Your task to perform on an android device: delete browsing data in the chrome app Image 0: 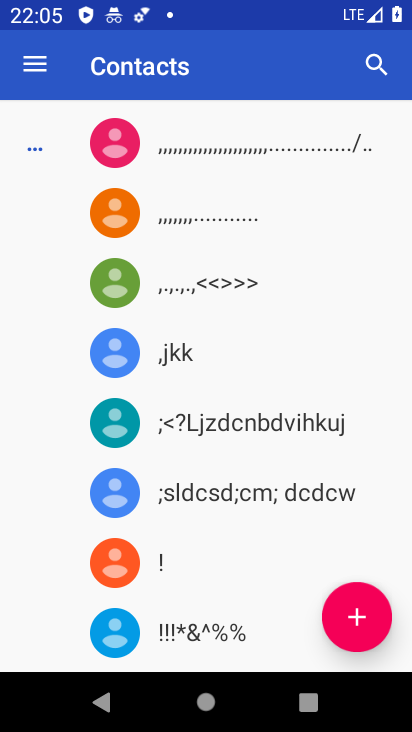
Step 0: press home button
Your task to perform on an android device: delete browsing data in the chrome app Image 1: 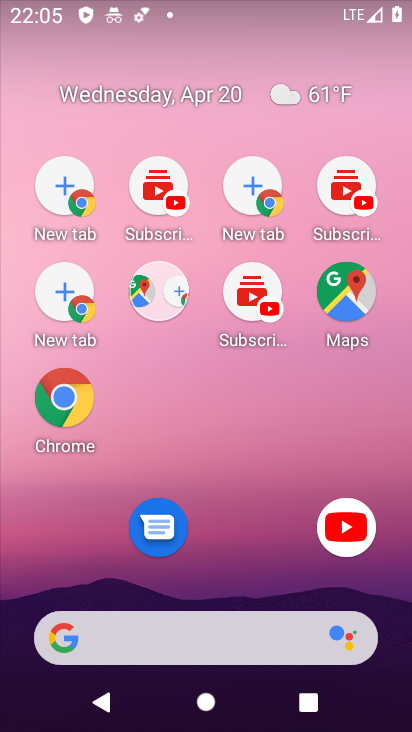
Step 1: drag from (252, 566) to (122, 73)
Your task to perform on an android device: delete browsing data in the chrome app Image 2: 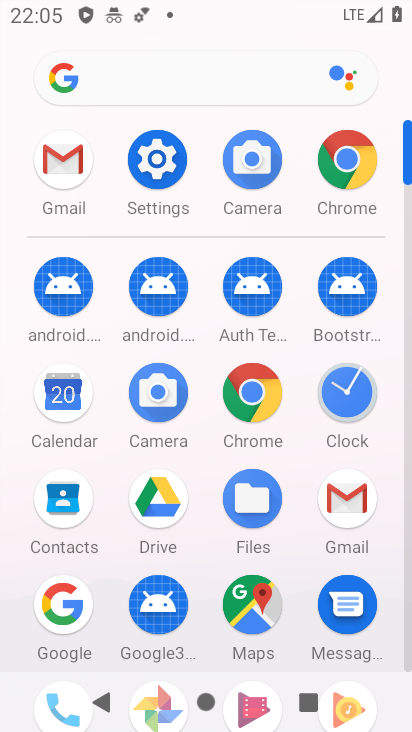
Step 2: click (353, 161)
Your task to perform on an android device: delete browsing data in the chrome app Image 3: 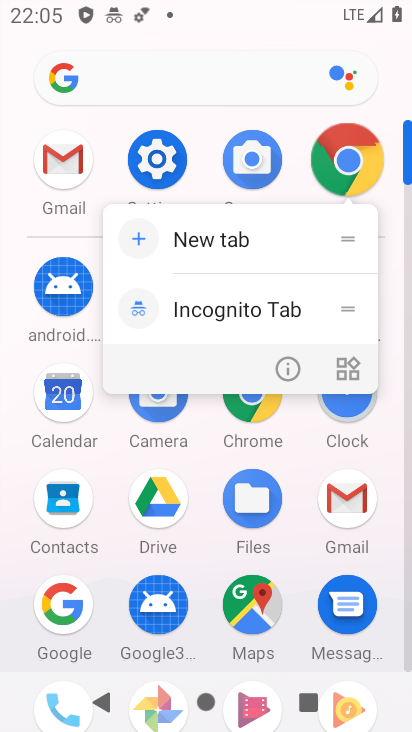
Step 3: click (353, 161)
Your task to perform on an android device: delete browsing data in the chrome app Image 4: 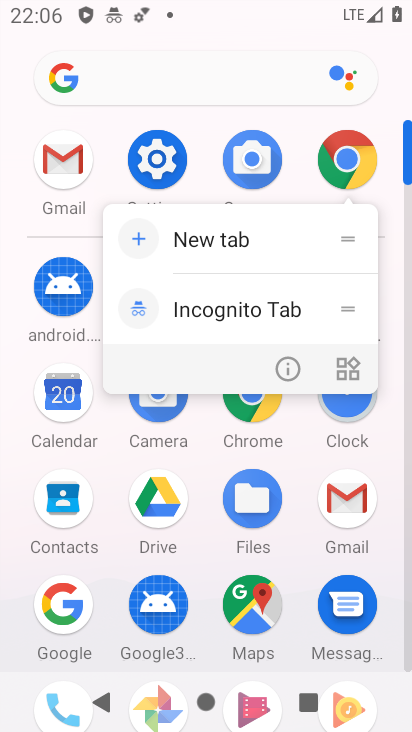
Step 4: click (355, 159)
Your task to perform on an android device: delete browsing data in the chrome app Image 5: 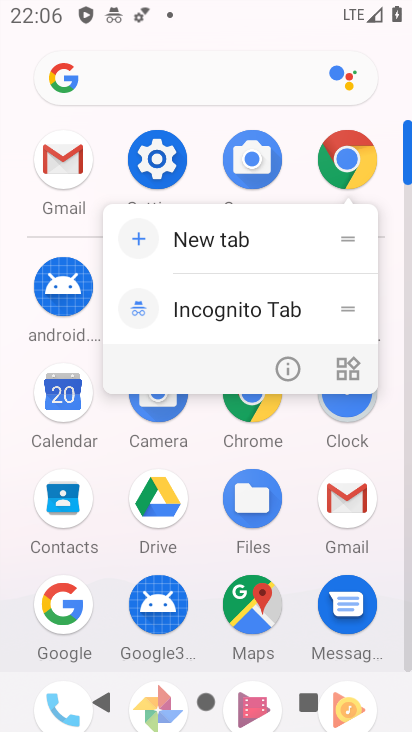
Step 5: click (355, 156)
Your task to perform on an android device: delete browsing data in the chrome app Image 6: 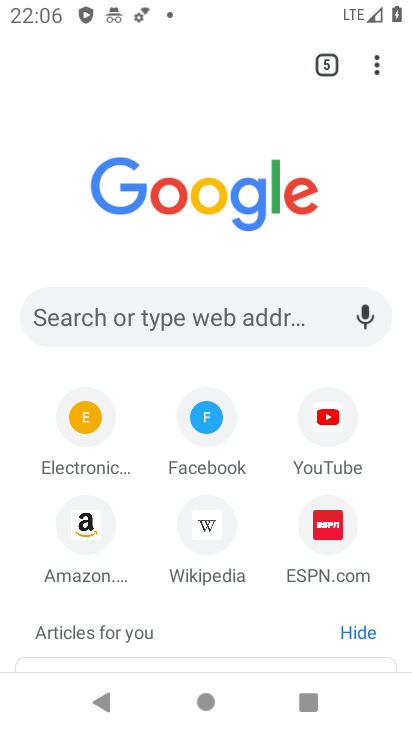
Step 6: drag from (376, 61) to (165, 380)
Your task to perform on an android device: delete browsing data in the chrome app Image 7: 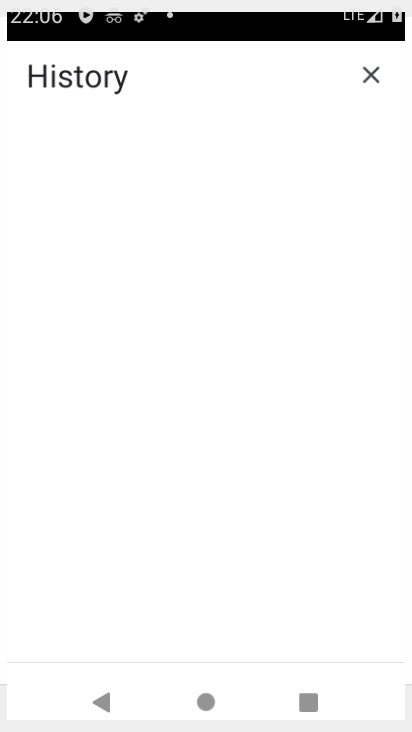
Step 7: click (168, 372)
Your task to perform on an android device: delete browsing data in the chrome app Image 8: 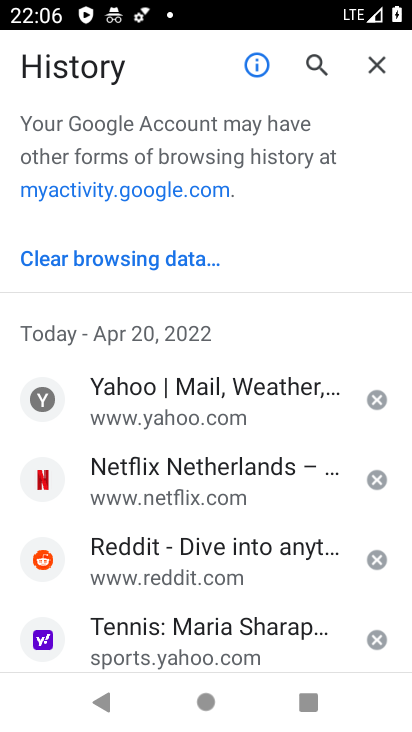
Step 8: click (375, 401)
Your task to perform on an android device: delete browsing data in the chrome app Image 9: 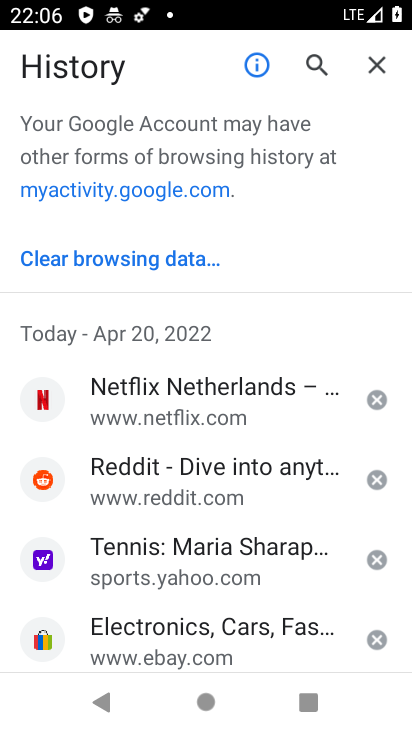
Step 9: task complete